Your task to perform on an android device: toggle priority inbox in the gmail app Image 0: 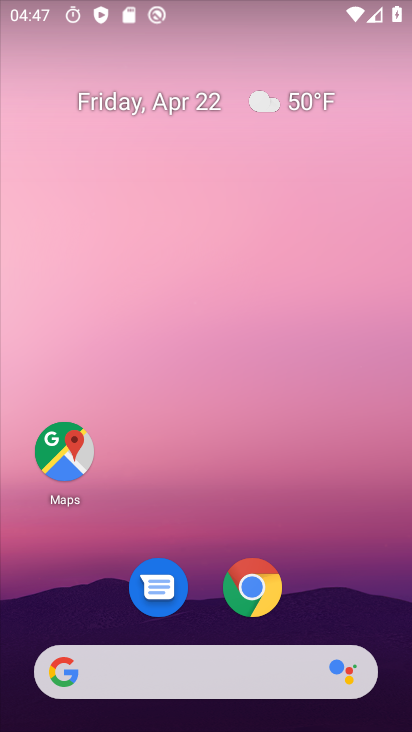
Step 0: drag from (387, 591) to (376, 10)
Your task to perform on an android device: toggle priority inbox in the gmail app Image 1: 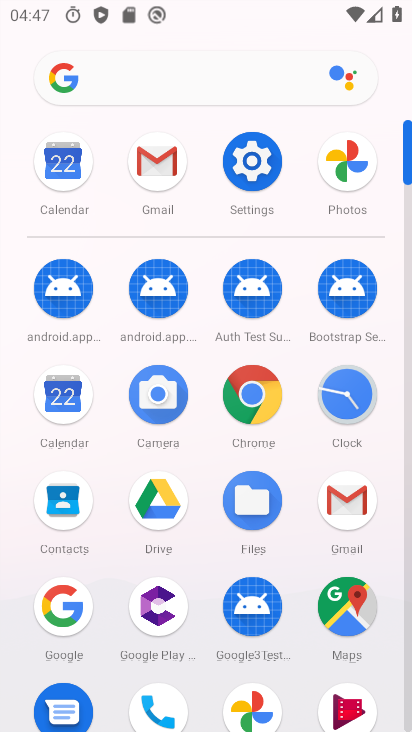
Step 1: click (158, 175)
Your task to perform on an android device: toggle priority inbox in the gmail app Image 2: 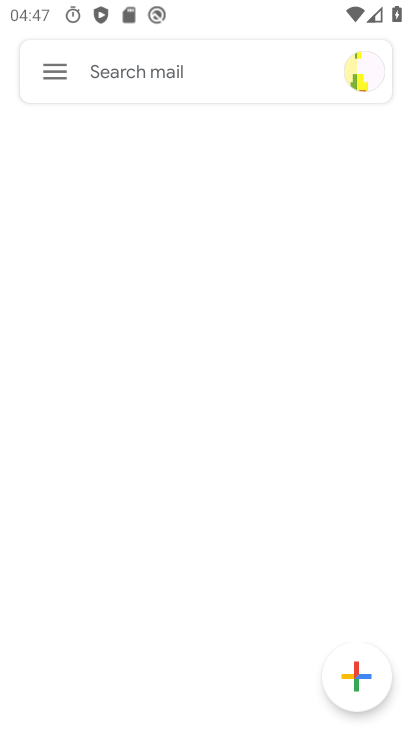
Step 2: click (51, 76)
Your task to perform on an android device: toggle priority inbox in the gmail app Image 3: 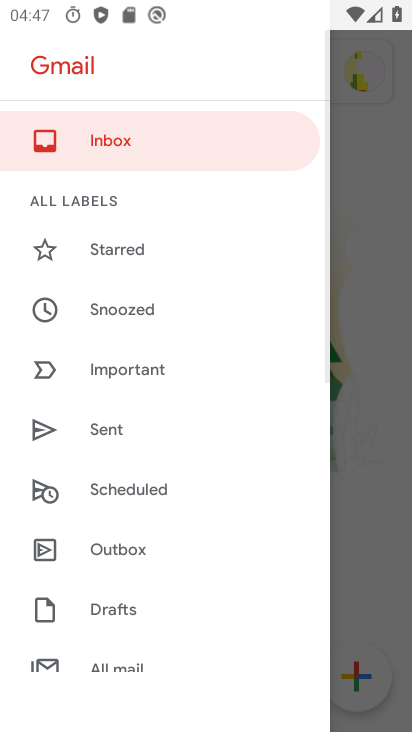
Step 3: drag from (186, 632) to (187, 163)
Your task to perform on an android device: toggle priority inbox in the gmail app Image 4: 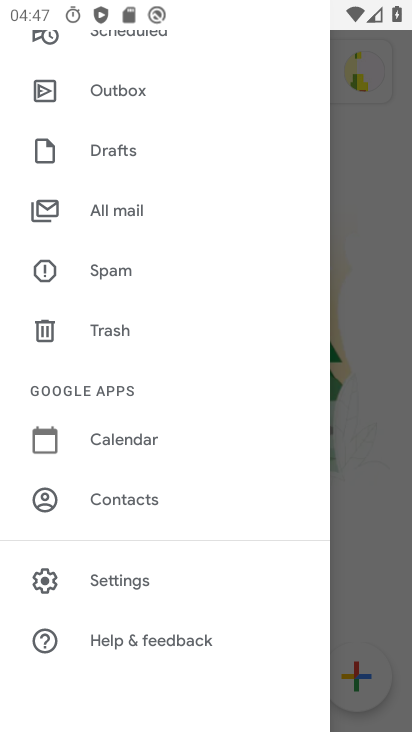
Step 4: drag from (178, 586) to (181, 245)
Your task to perform on an android device: toggle priority inbox in the gmail app Image 5: 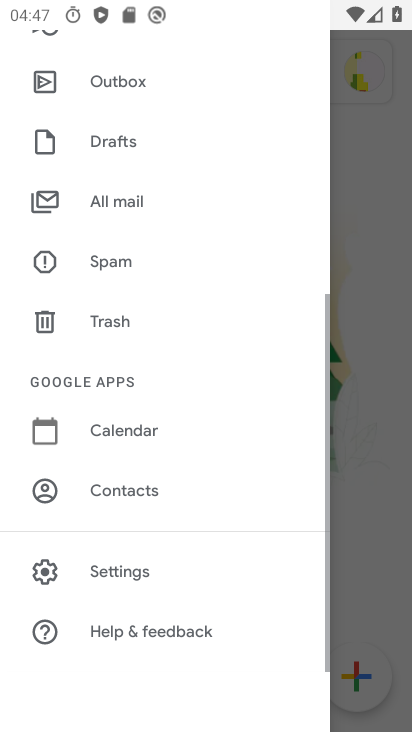
Step 5: click (120, 562)
Your task to perform on an android device: toggle priority inbox in the gmail app Image 6: 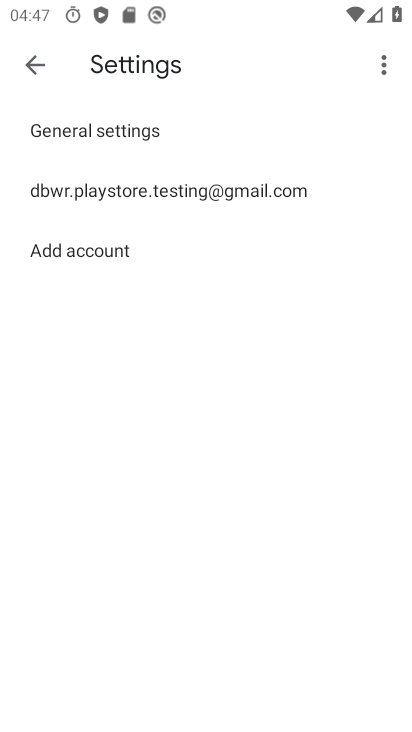
Step 6: click (161, 186)
Your task to perform on an android device: toggle priority inbox in the gmail app Image 7: 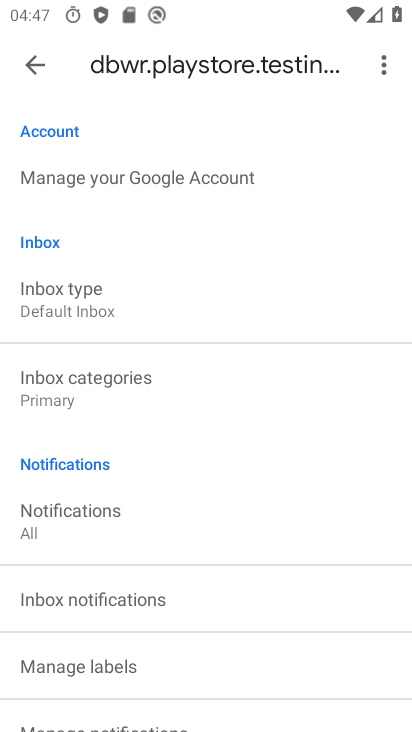
Step 7: click (46, 303)
Your task to perform on an android device: toggle priority inbox in the gmail app Image 8: 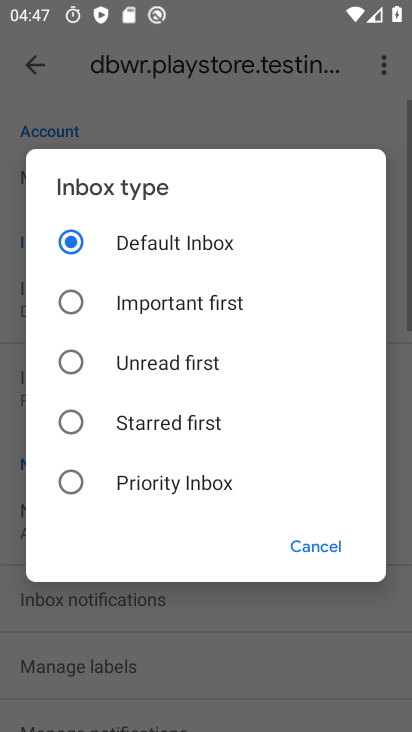
Step 8: click (85, 481)
Your task to perform on an android device: toggle priority inbox in the gmail app Image 9: 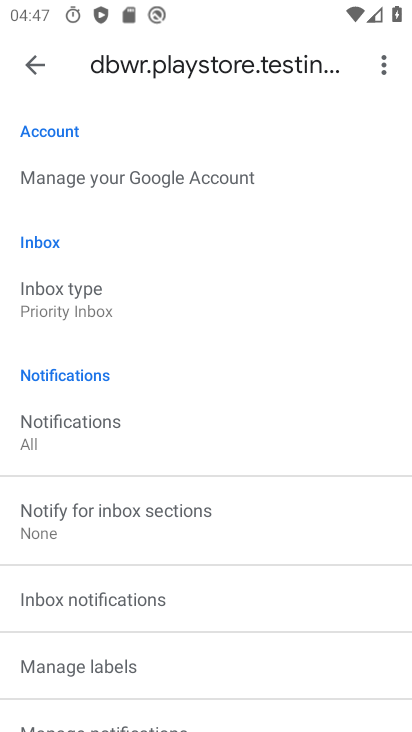
Step 9: task complete